Your task to perform on an android device: Open calendar and show me the third week of next month Image 0: 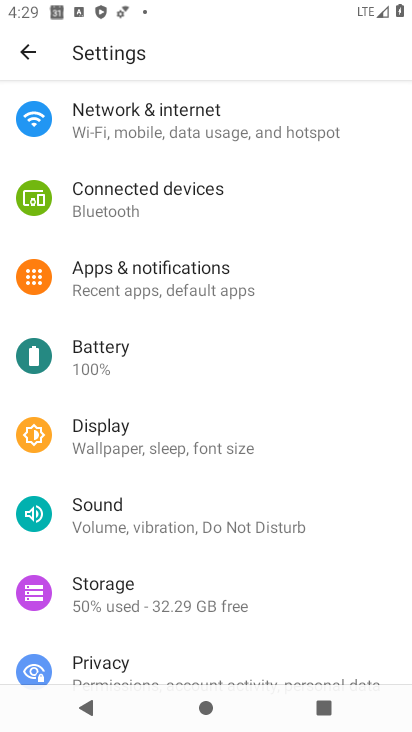
Step 0: press home button
Your task to perform on an android device: Open calendar and show me the third week of next month Image 1: 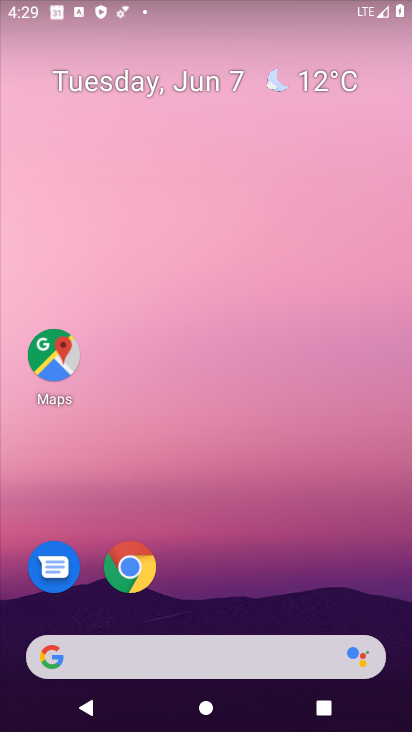
Step 1: drag from (275, 668) to (336, 81)
Your task to perform on an android device: Open calendar and show me the third week of next month Image 2: 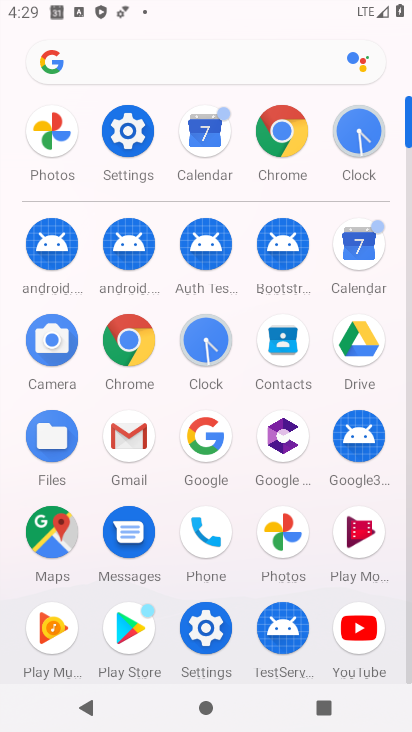
Step 2: click (357, 235)
Your task to perform on an android device: Open calendar and show me the third week of next month Image 3: 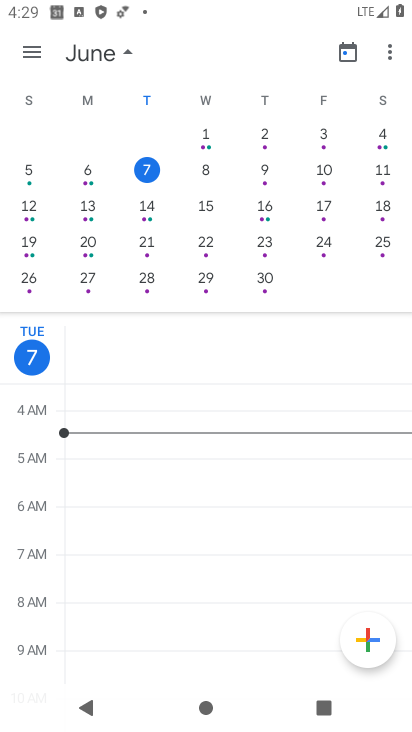
Step 3: drag from (346, 194) to (50, 234)
Your task to perform on an android device: Open calendar and show me the third week of next month Image 4: 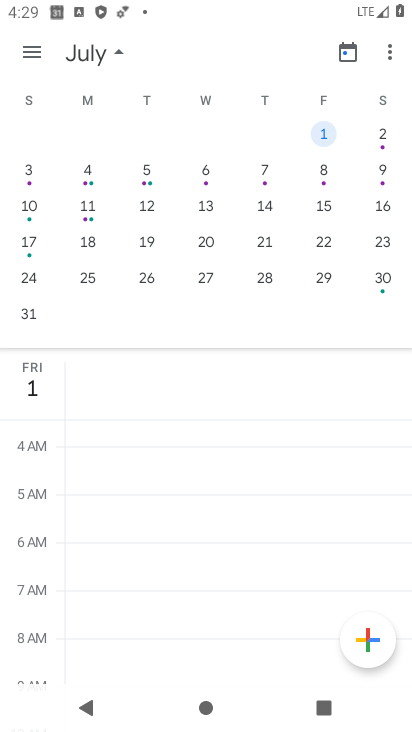
Step 4: click (207, 206)
Your task to perform on an android device: Open calendar and show me the third week of next month Image 5: 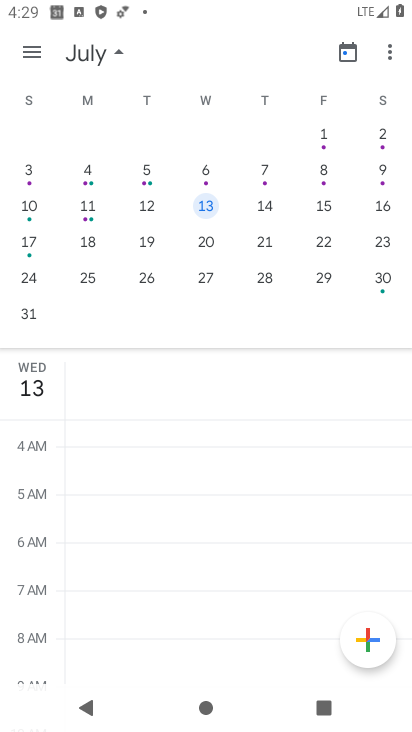
Step 5: click (113, 45)
Your task to perform on an android device: Open calendar and show me the third week of next month Image 6: 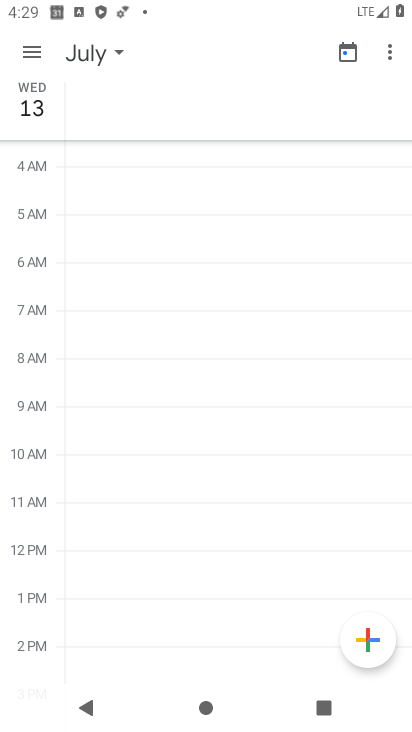
Step 6: click (120, 47)
Your task to perform on an android device: Open calendar and show me the third week of next month Image 7: 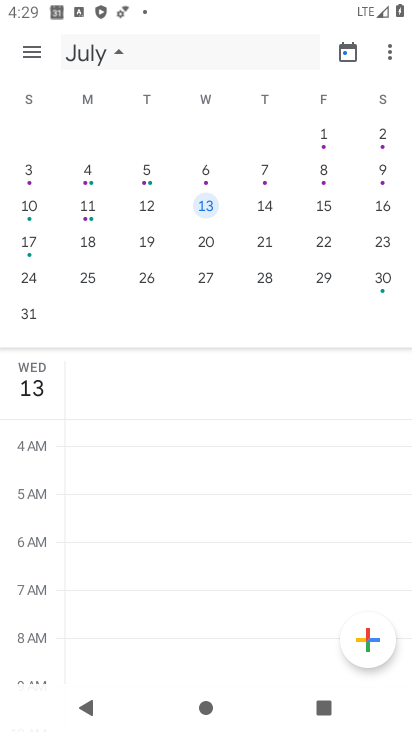
Step 7: click (27, 47)
Your task to perform on an android device: Open calendar and show me the third week of next month Image 8: 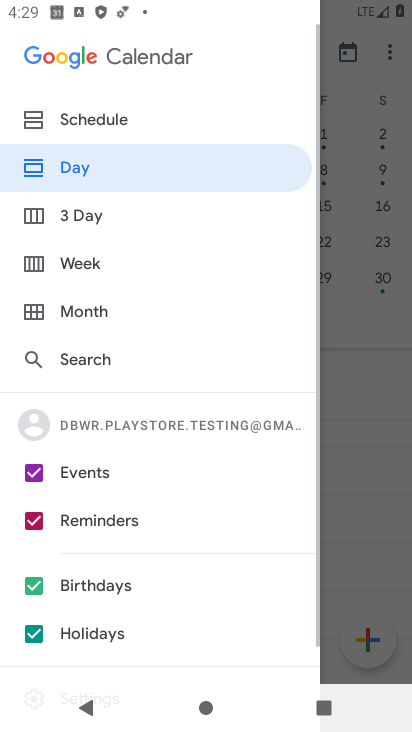
Step 8: click (88, 262)
Your task to perform on an android device: Open calendar and show me the third week of next month Image 9: 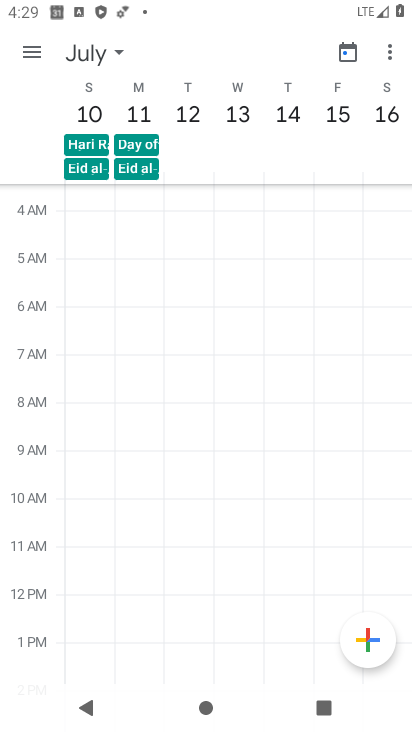
Step 9: task complete